Your task to perform on an android device: Search for vegetarian restaurants on Maps Image 0: 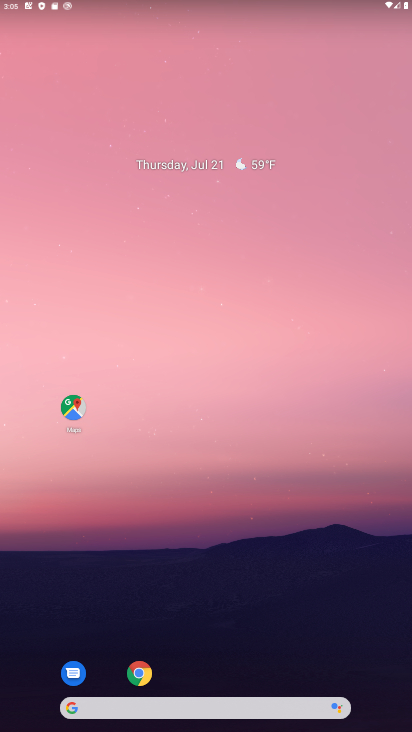
Step 0: click (73, 405)
Your task to perform on an android device: Search for vegetarian restaurants on Maps Image 1: 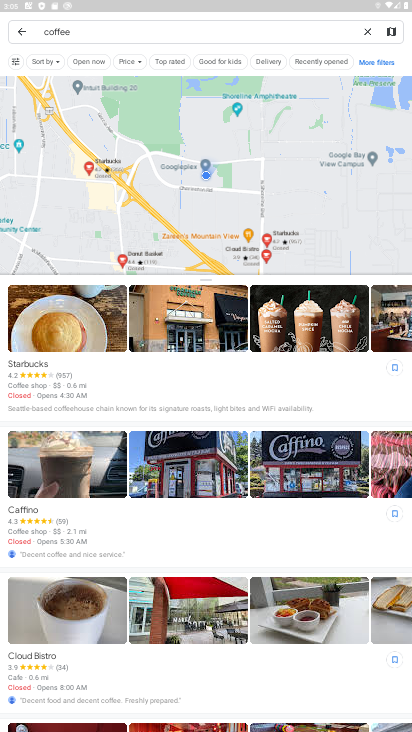
Step 1: click (371, 27)
Your task to perform on an android device: Search for vegetarian restaurants on Maps Image 2: 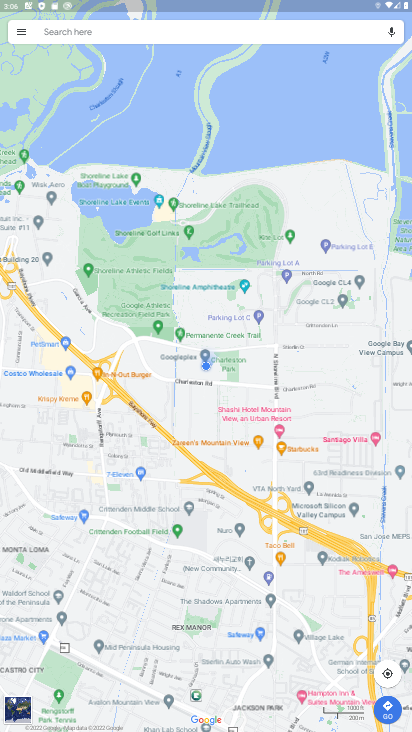
Step 2: click (140, 38)
Your task to perform on an android device: Search for vegetarian restaurants on Maps Image 3: 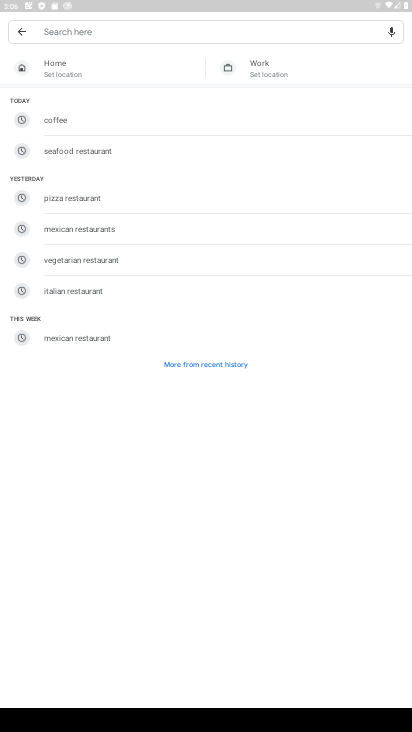
Step 3: click (122, 264)
Your task to perform on an android device: Search for vegetarian restaurants on Maps Image 4: 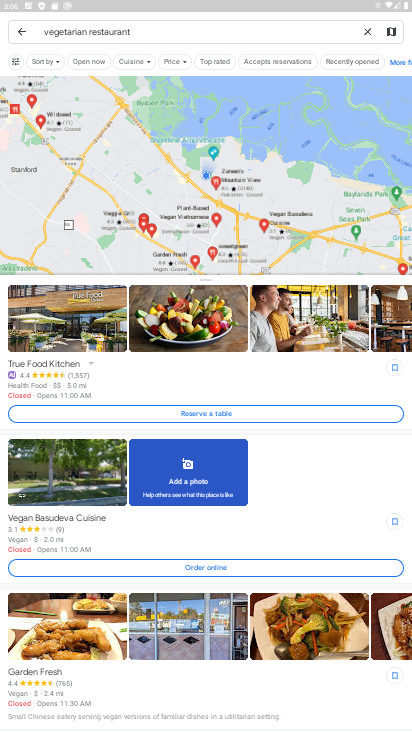
Step 4: task complete